Your task to perform on an android device: Open maps Image 0: 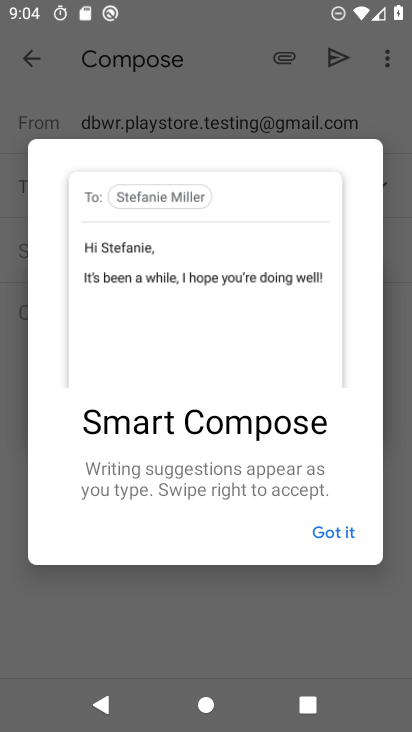
Step 0: press home button
Your task to perform on an android device: Open maps Image 1: 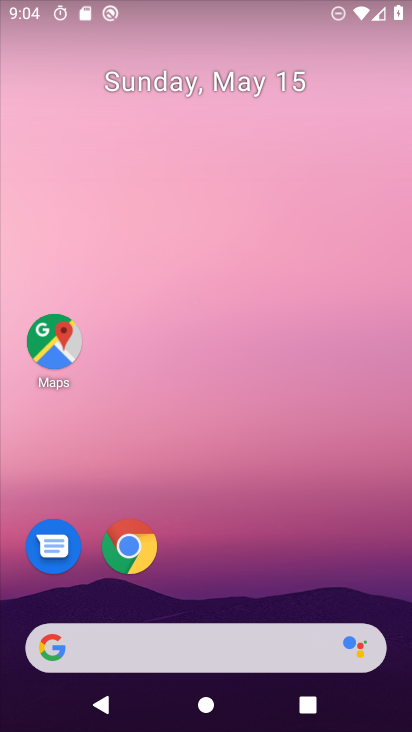
Step 1: click (43, 345)
Your task to perform on an android device: Open maps Image 2: 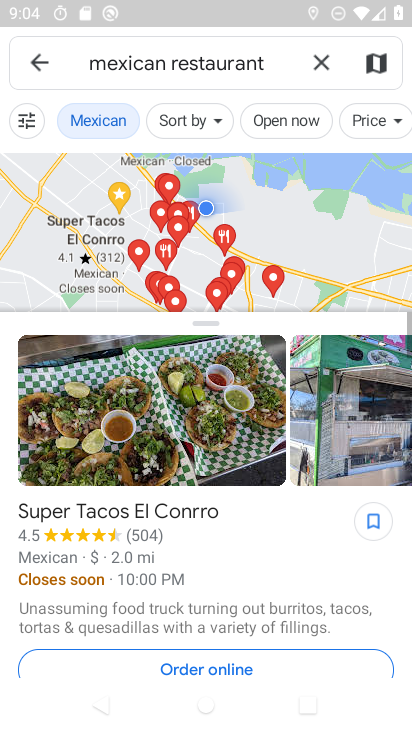
Step 2: click (37, 53)
Your task to perform on an android device: Open maps Image 3: 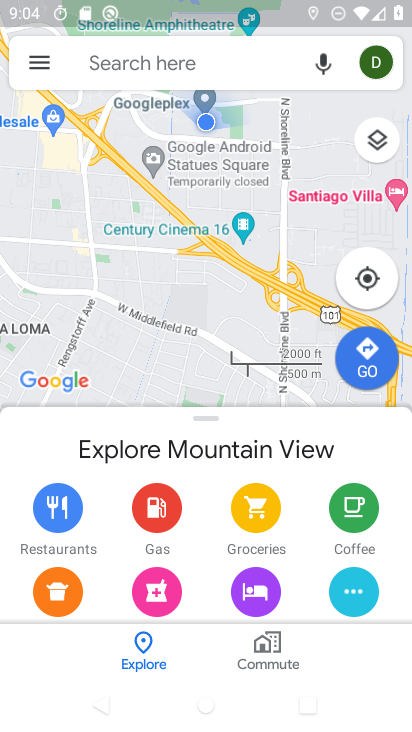
Step 3: task complete